Your task to perform on an android device: What is the recent news? Image 0: 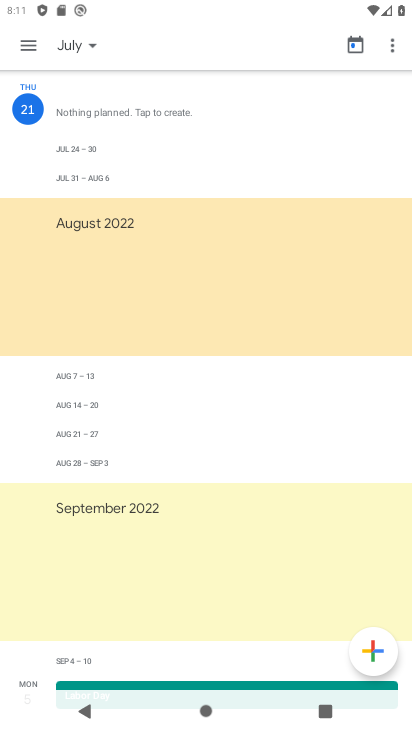
Step 0: click (285, 592)
Your task to perform on an android device: What is the recent news? Image 1: 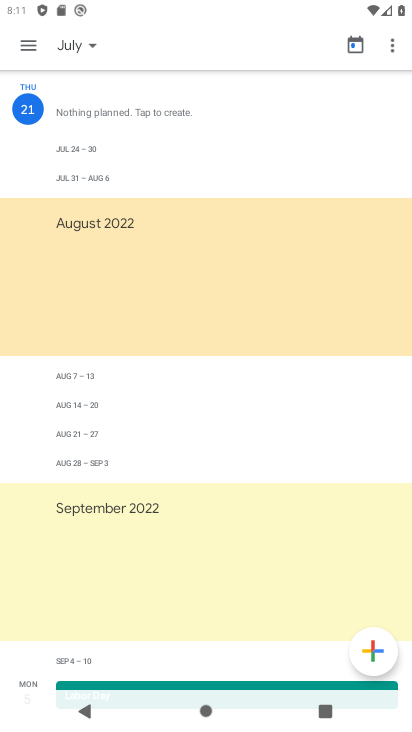
Step 1: press home button
Your task to perform on an android device: What is the recent news? Image 2: 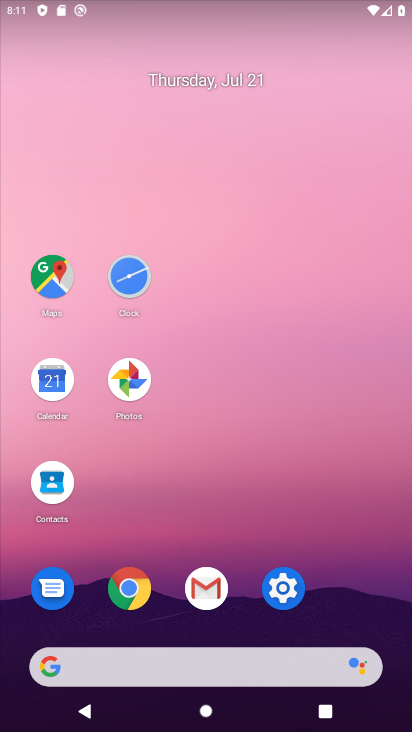
Step 2: drag from (15, 163) to (375, 203)
Your task to perform on an android device: What is the recent news? Image 3: 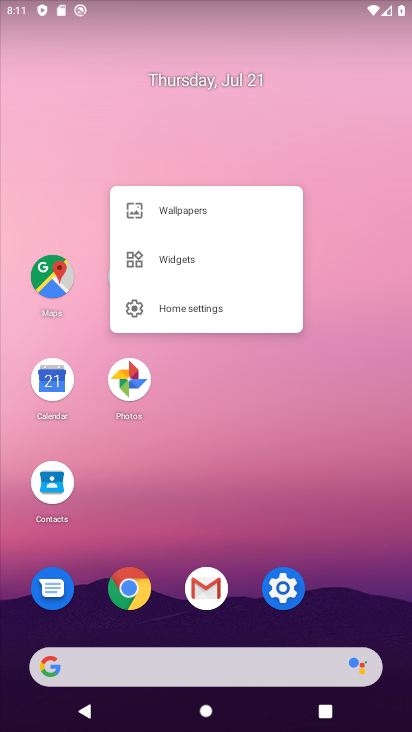
Step 3: click (75, 165)
Your task to perform on an android device: What is the recent news? Image 4: 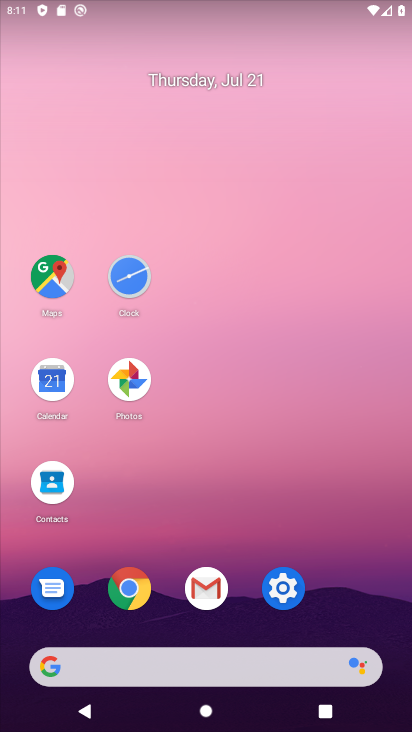
Step 4: task complete